Your task to perform on an android device: toggle airplane mode Image 0: 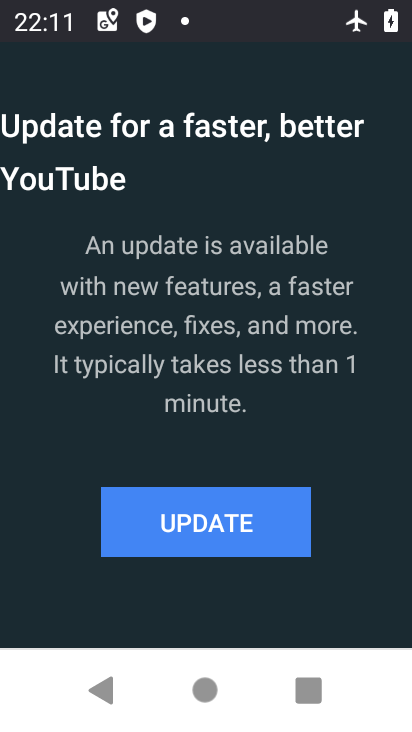
Step 0: press home button
Your task to perform on an android device: toggle airplane mode Image 1: 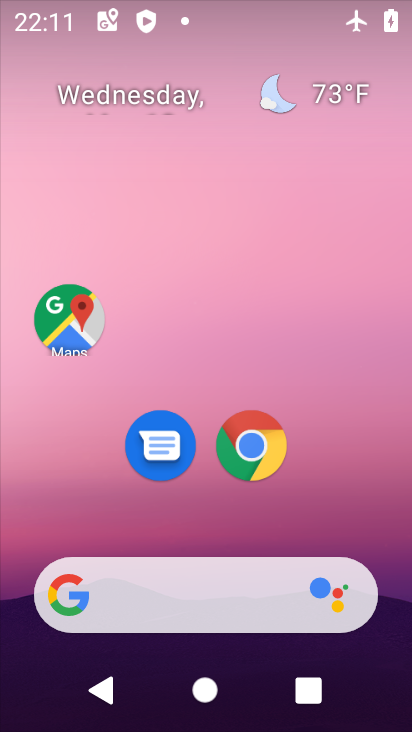
Step 1: drag from (302, 528) to (317, 199)
Your task to perform on an android device: toggle airplane mode Image 2: 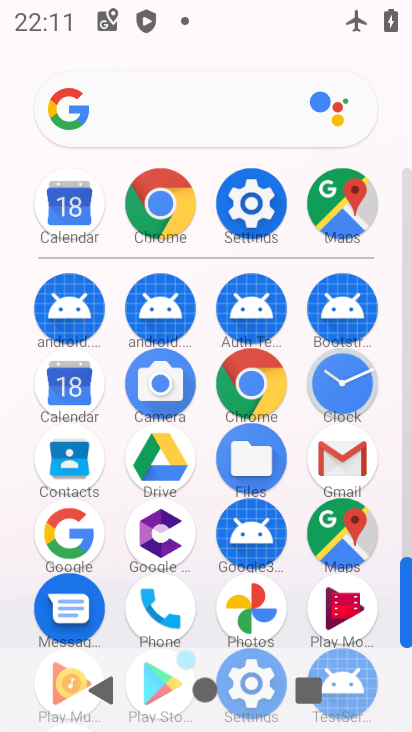
Step 2: click (235, 196)
Your task to perform on an android device: toggle airplane mode Image 3: 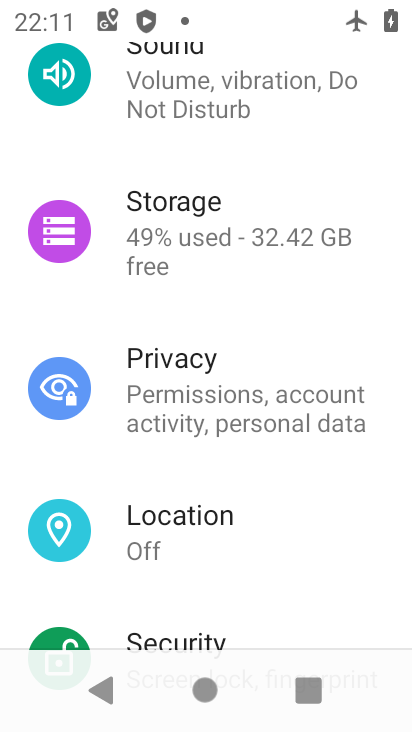
Step 3: drag from (239, 116) to (236, 601)
Your task to perform on an android device: toggle airplane mode Image 4: 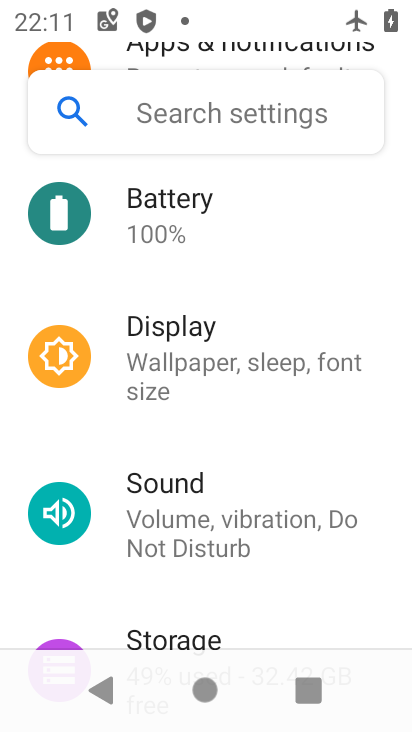
Step 4: drag from (265, 223) to (292, 624)
Your task to perform on an android device: toggle airplane mode Image 5: 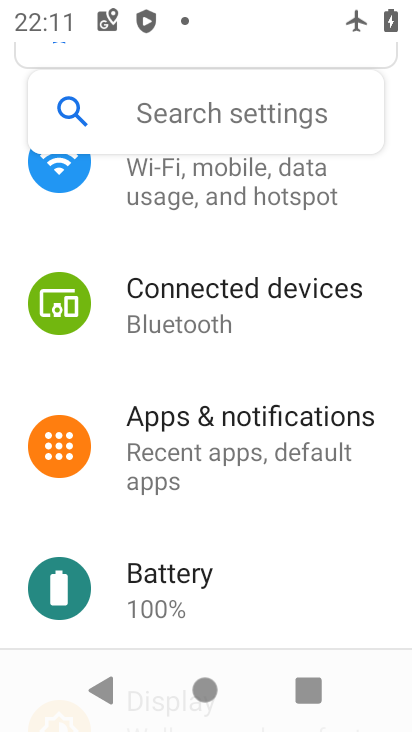
Step 5: drag from (246, 213) to (258, 315)
Your task to perform on an android device: toggle airplane mode Image 6: 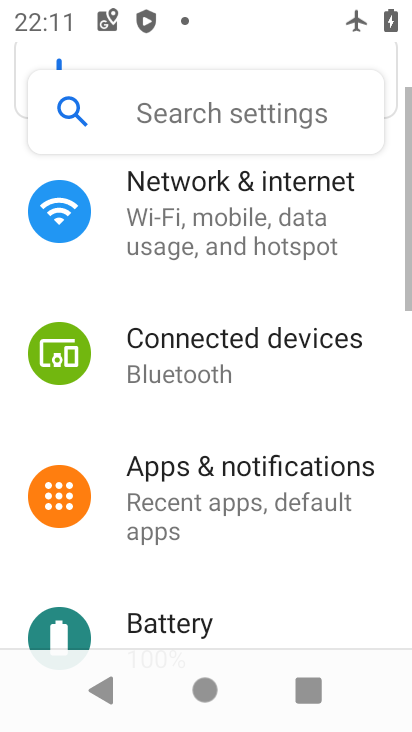
Step 6: drag from (260, 323) to (260, 420)
Your task to perform on an android device: toggle airplane mode Image 7: 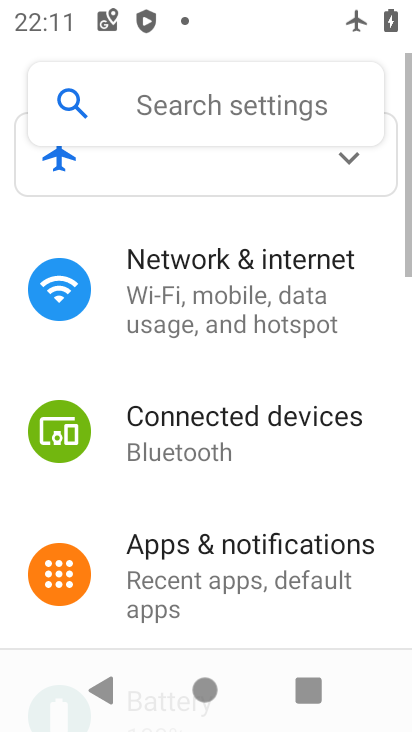
Step 7: click (228, 207)
Your task to perform on an android device: toggle airplane mode Image 8: 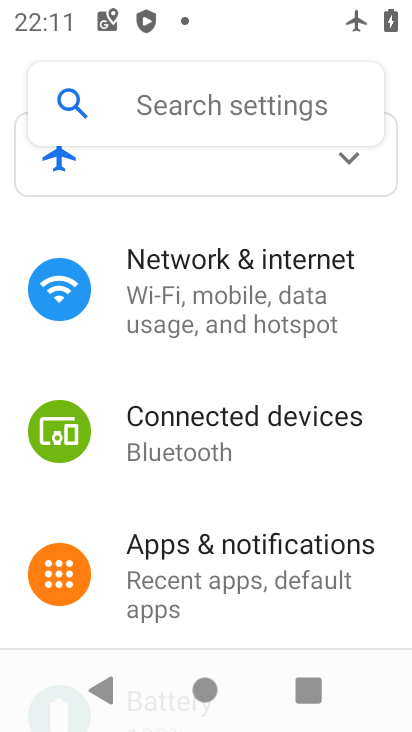
Step 8: click (232, 254)
Your task to perform on an android device: toggle airplane mode Image 9: 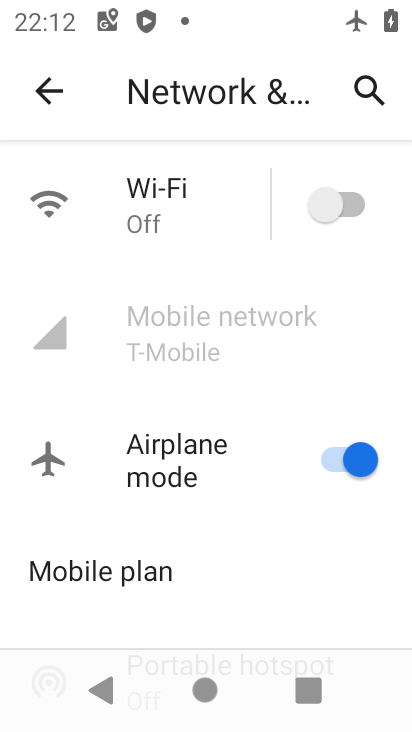
Step 9: click (331, 468)
Your task to perform on an android device: toggle airplane mode Image 10: 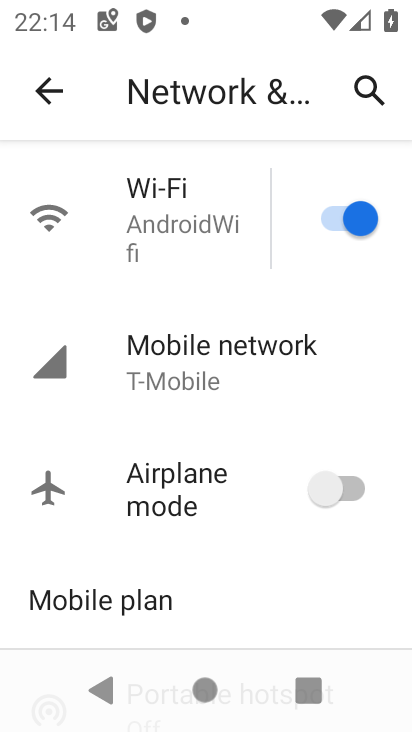
Step 10: task complete